Your task to perform on an android device: move a message to another label in the gmail app Image 0: 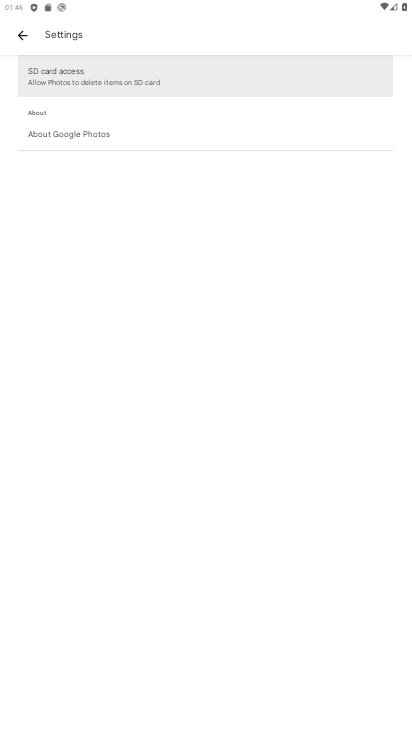
Step 0: press home button
Your task to perform on an android device: move a message to another label in the gmail app Image 1: 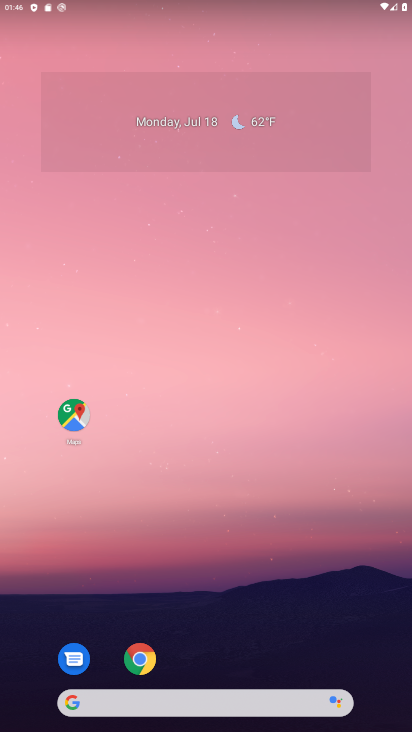
Step 1: drag from (341, 525) to (247, 5)
Your task to perform on an android device: move a message to another label in the gmail app Image 2: 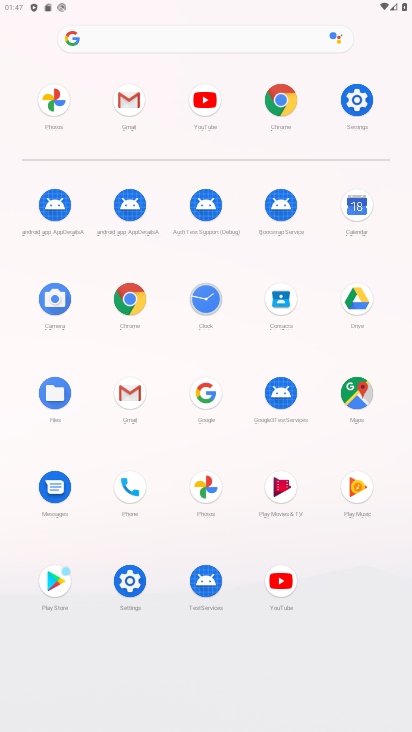
Step 2: click (134, 102)
Your task to perform on an android device: move a message to another label in the gmail app Image 3: 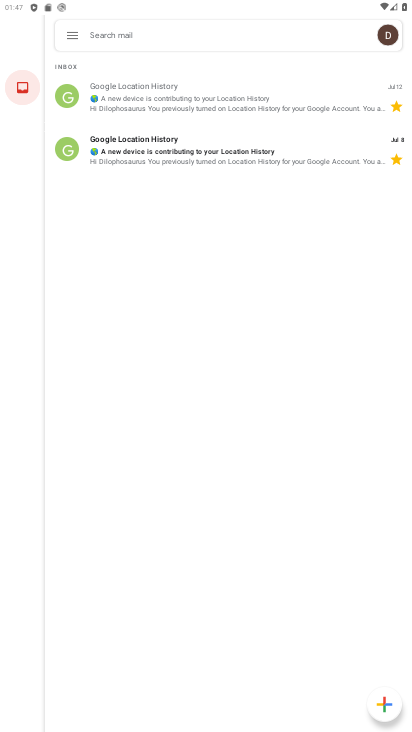
Step 3: click (218, 107)
Your task to perform on an android device: move a message to another label in the gmail app Image 4: 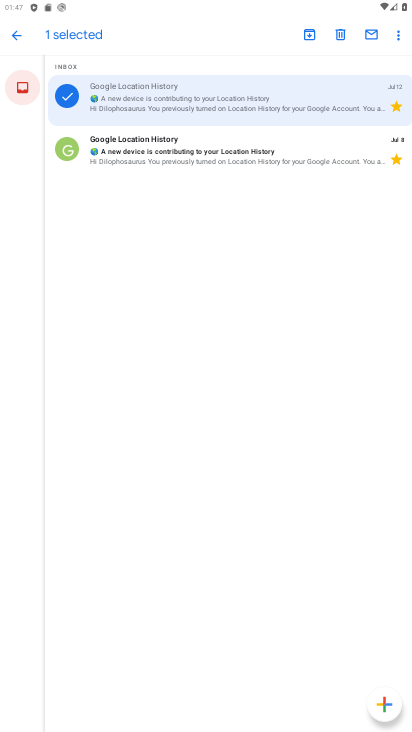
Step 4: click (397, 30)
Your task to perform on an android device: move a message to another label in the gmail app Image 5: 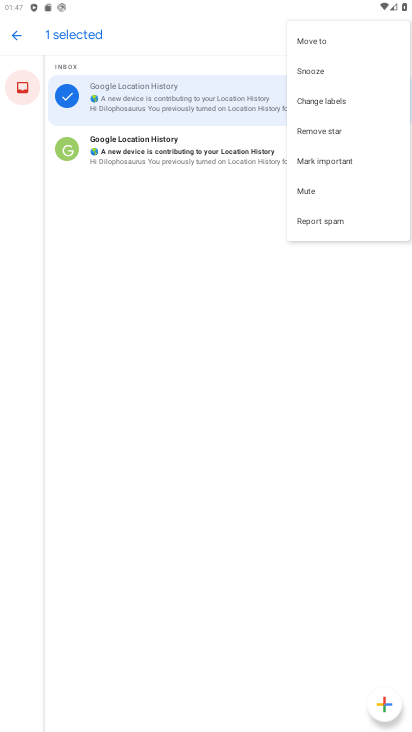
Step 5: click (333, 102)
Your task to perform on an android device: move a message to another label in the gmail app Image 6: 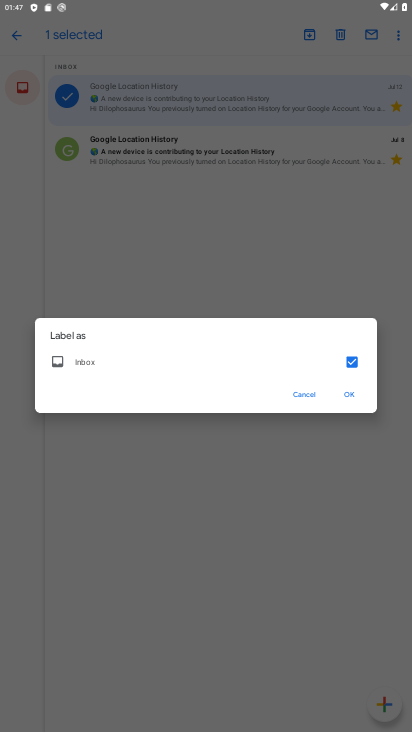
Step 6: task complete